Your task to perform on an android device: Open Maps and search for coffee Image 0: 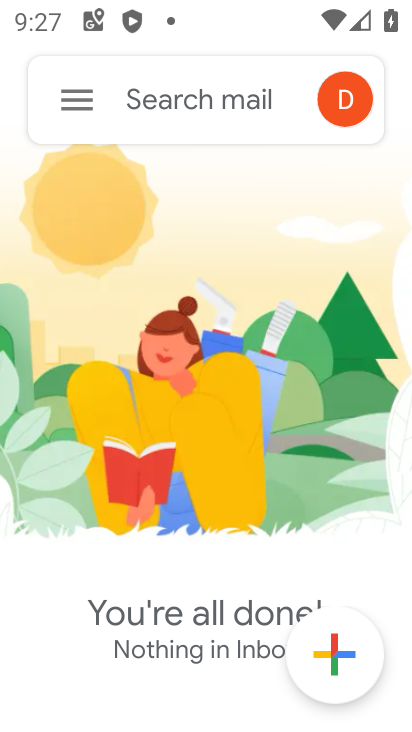
Step 0: press home button
Your task to perform on an android device: Open Maps and search for coffee Image 1: 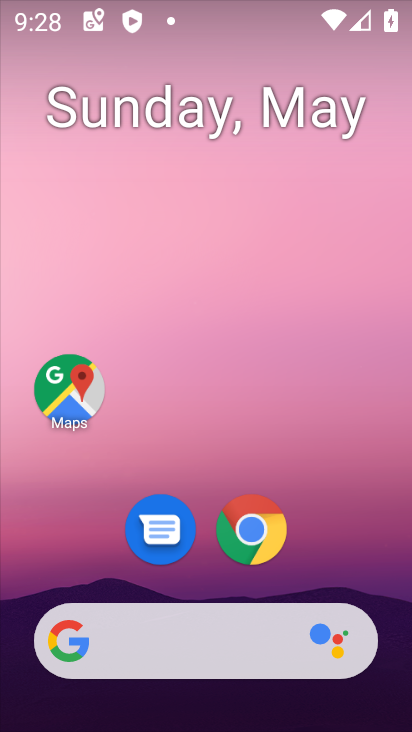
Step 1: click (81, 423)
Your task to perform on an android device: Open Maps and search for coffee Image 2: 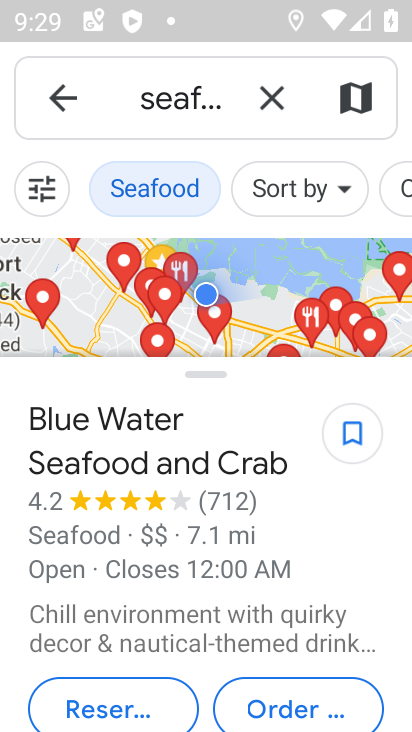
Step 2: click (269, 89)
Your task to perform on an android device: Open Maps and search for coffee Image 3: 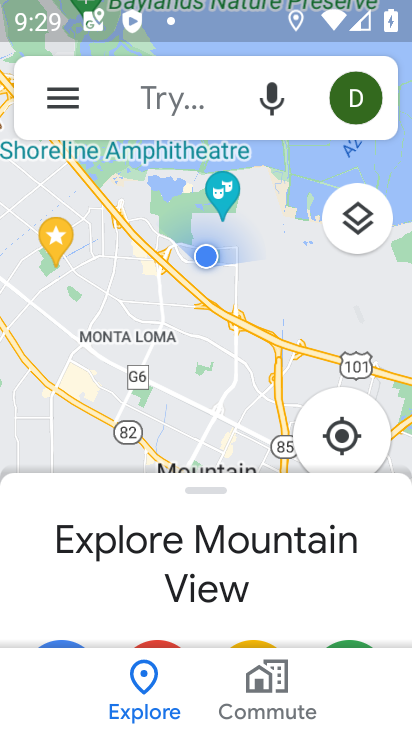
Step 3: click (196, 100)
Your task to perform on an android device: Open Maps and search for coffee Image 4: 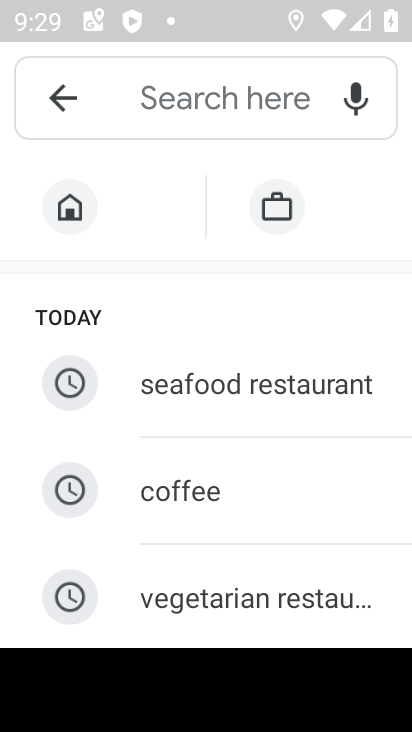
Step 4: click (226, 507)
Your task to perform on an android device: Open Maps and search for coffee Image 5: 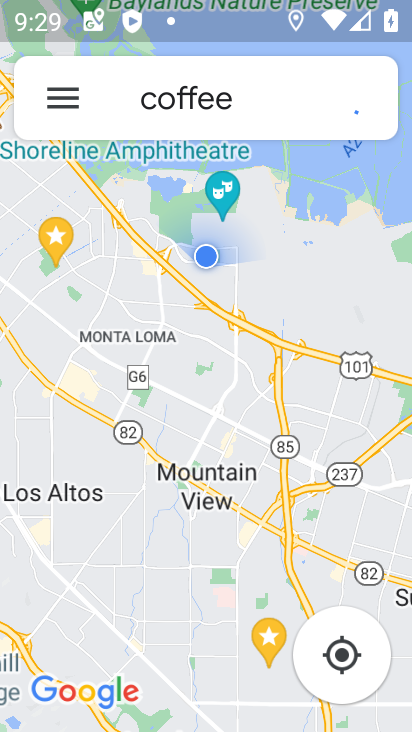
Step 5: task complete